Your task to perform on an android device: Open calendar and show me the fourth week of next month Image 0: 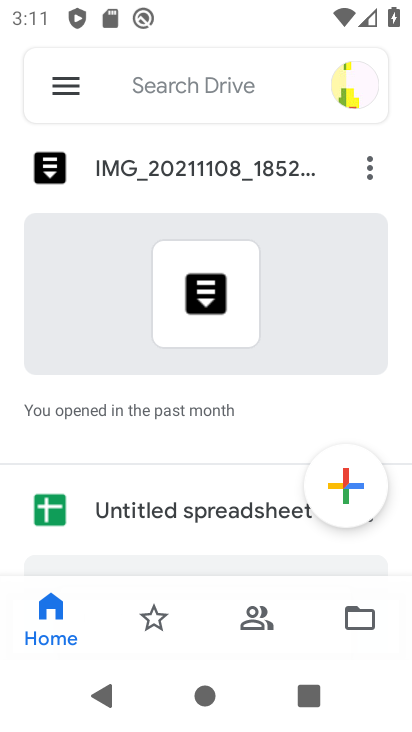
Step 0: press home button
Your task to perform on an android device: Open calendar and show me the fourth week of next month Image 1: 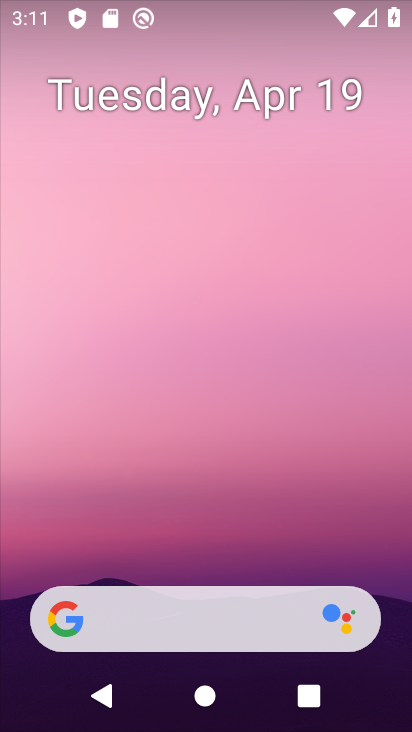
Step 1: drag from (208, 564) to (277, 39)
Your task to perform on an android device: Open calendar and show me the fourth week of next month Image 2: 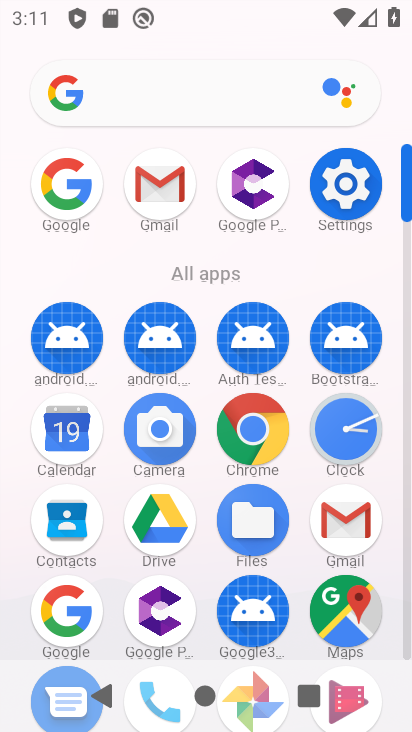
Step 2: click (68, 431)
Your task to perform on an android device: Open calendar and show me the fourth week of next month Image 3: 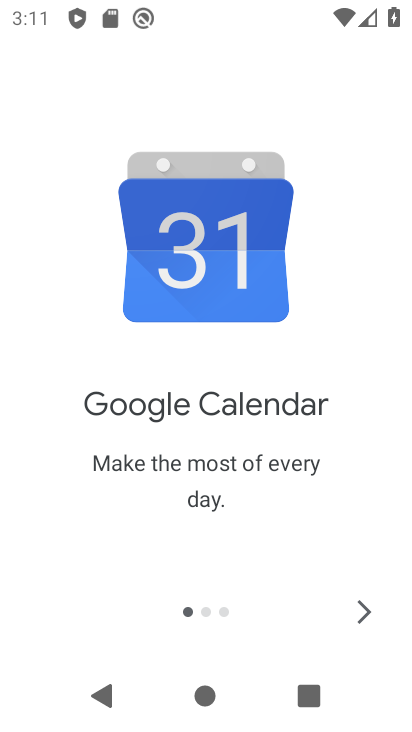
Step 3: click (371, 611)
Your task to perform on an android device: Open calendar and show me the fourth week of next month Image 4: 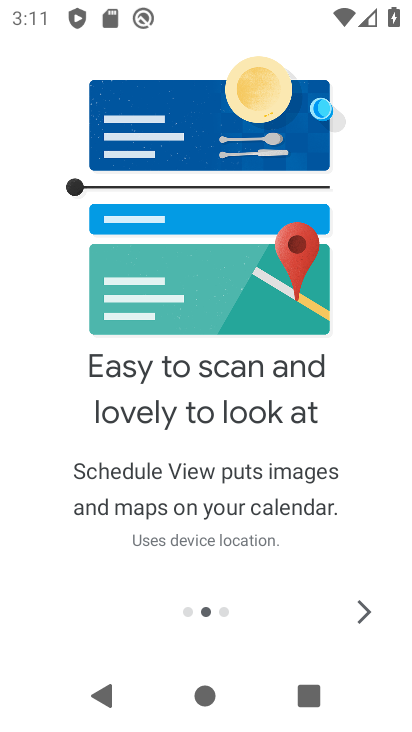
Step 4: click (371, 611)
Your task to perform on an android device: Open calendar and show me the fourth week of next month Image 5: 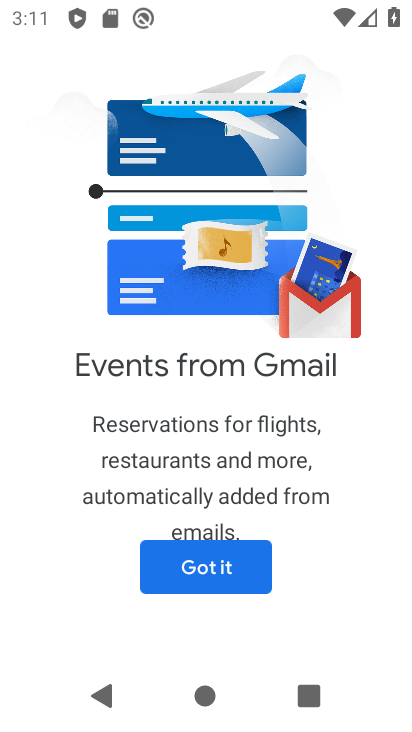
Step 5: click (218, 564)
Your task to perform on an android device: Open calendar and show me the fourth week of next month Image 6: 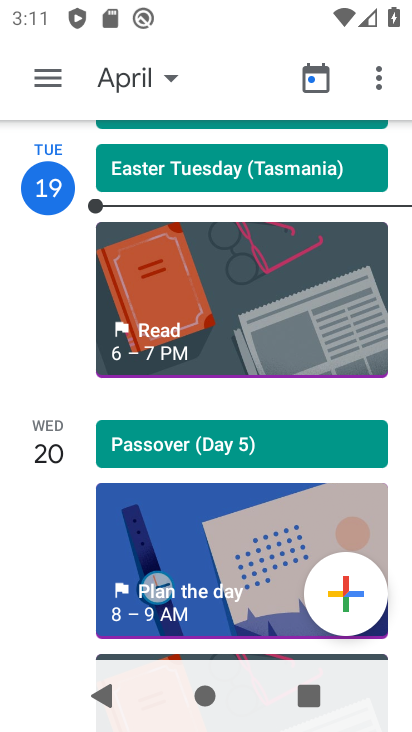
Step 6: click (173, 75)
Your task to perform on an android device: Open calendar and show me the fourth week of next month Image 7: 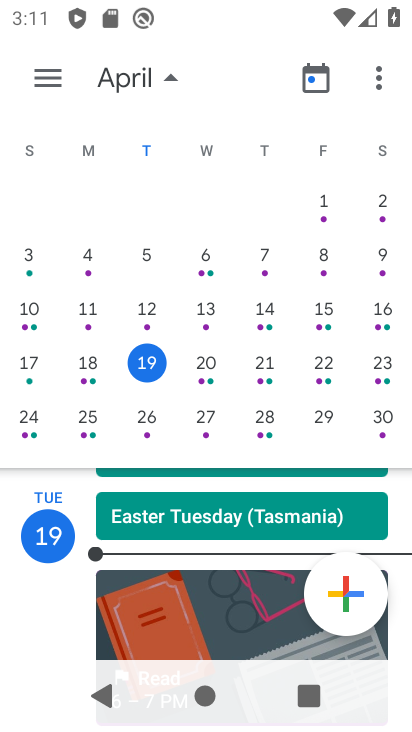
Step 7: drag from (357, 353) to (10, 325)
Your task to perform on an android device: Open calendar and show me the fourth week of next month Image 8: 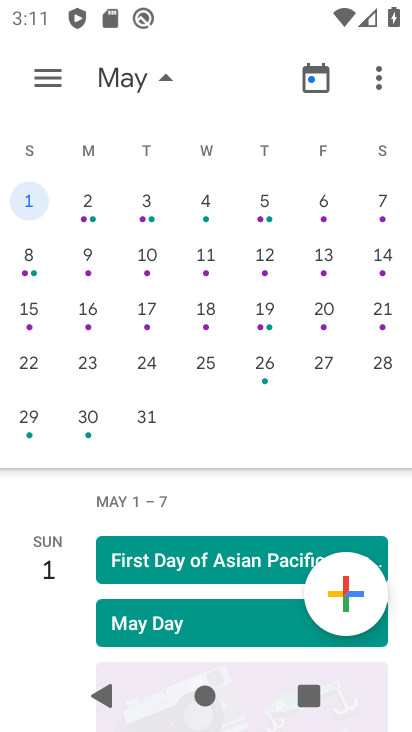
Step 8: click (97, 361)
Your task to perform on an android device: Open calendar and show me the fourth week of next month Image 9: 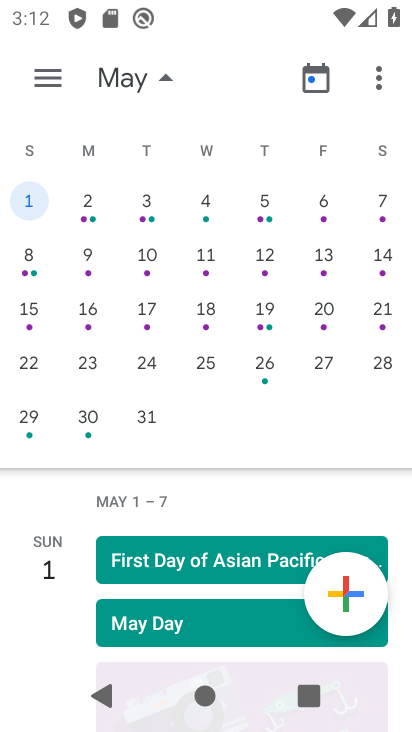
Step 9: click (88, 356)
Your task to perform on an android device: Open calendar and show me the fourth week of next month Image 10: 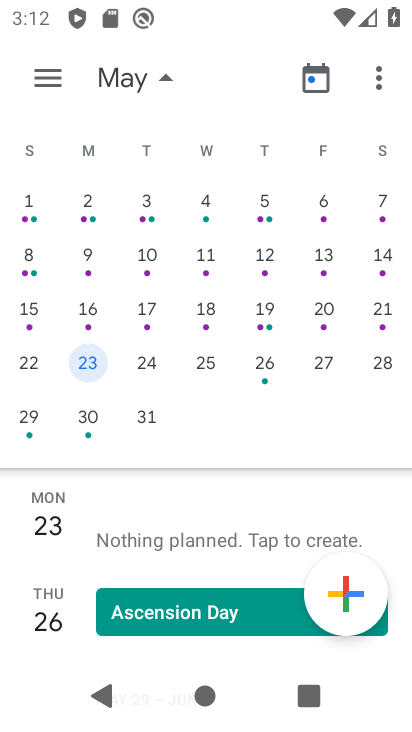
Step 10: click (52, 82)
Your task to perform on an android device: Open calendar and show me the fourth week of next month Image 11: 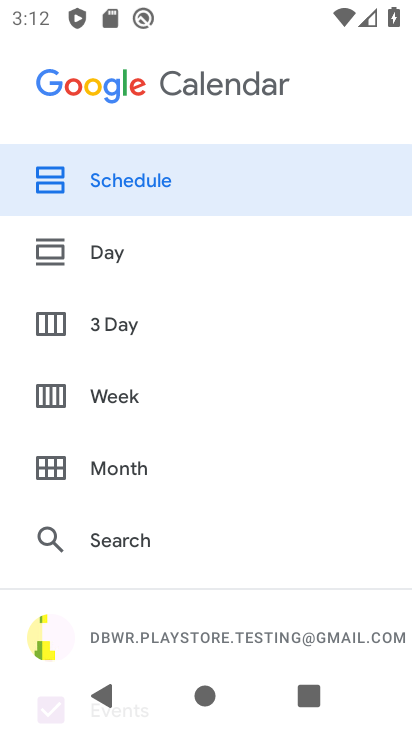
Step 11: click (125, 386)
Your task to perform on an android device: Open calendar and show me the fourth week of next month Image 12: 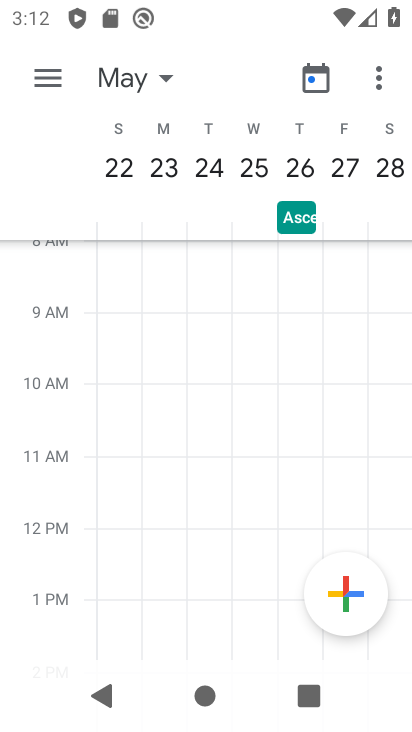
Step 12: task complete